Your task to perform on an android device: set the stopwatch Image 0: 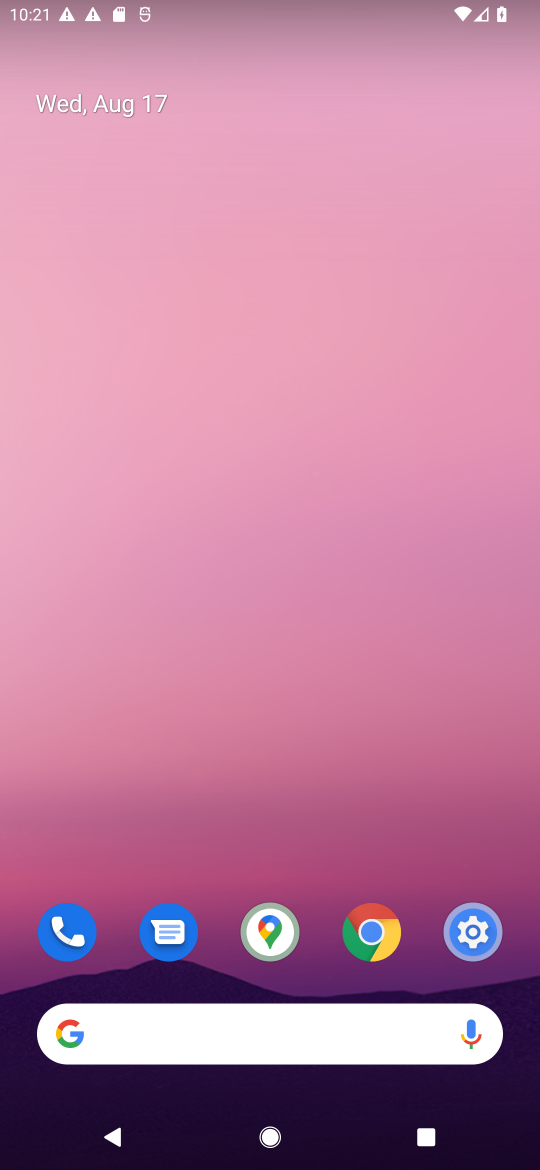
Step 0: drag from (294, 549) to (252, 235)
Your task to perform on an android device: set the stopwatch Image 1: 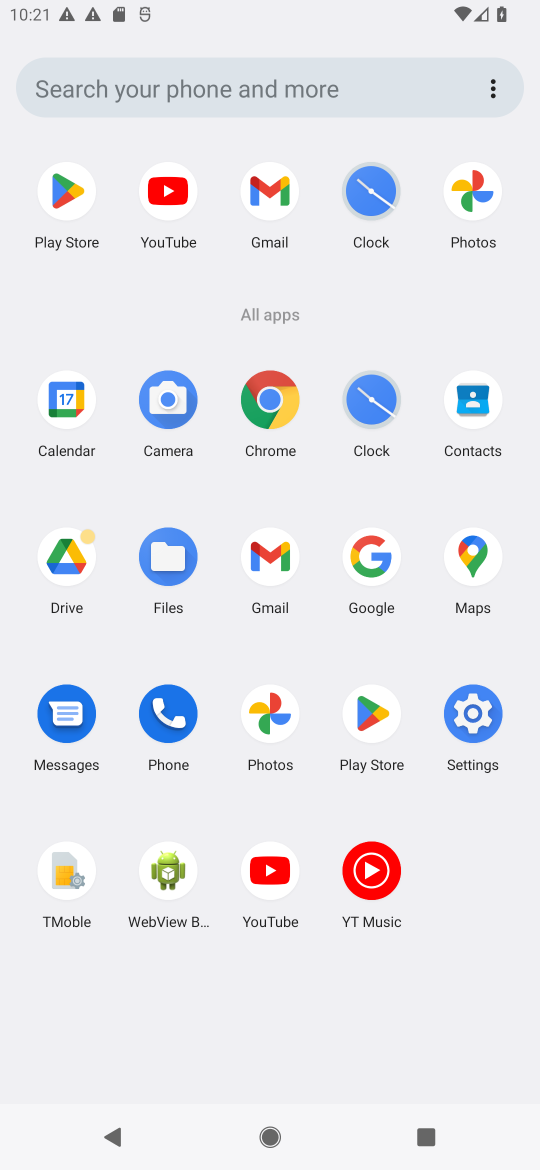
Step 1: click (342, 201)
Your task to perform on an android device: set the stopwatch Image 2: 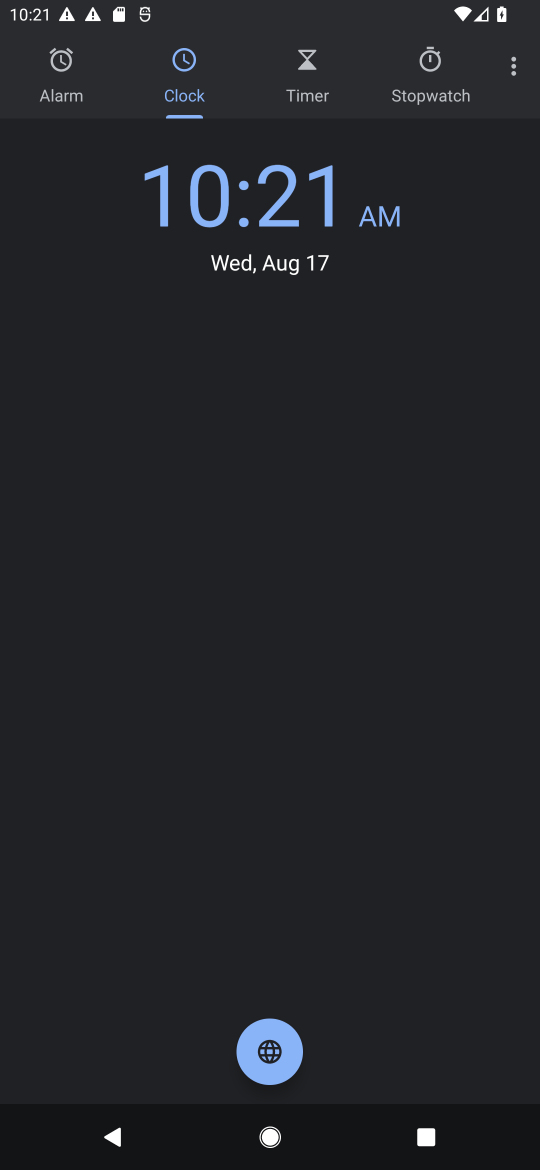
Step 2: click (405, 63)
Your task to perform on an android device: set the stopwatch Image 3: 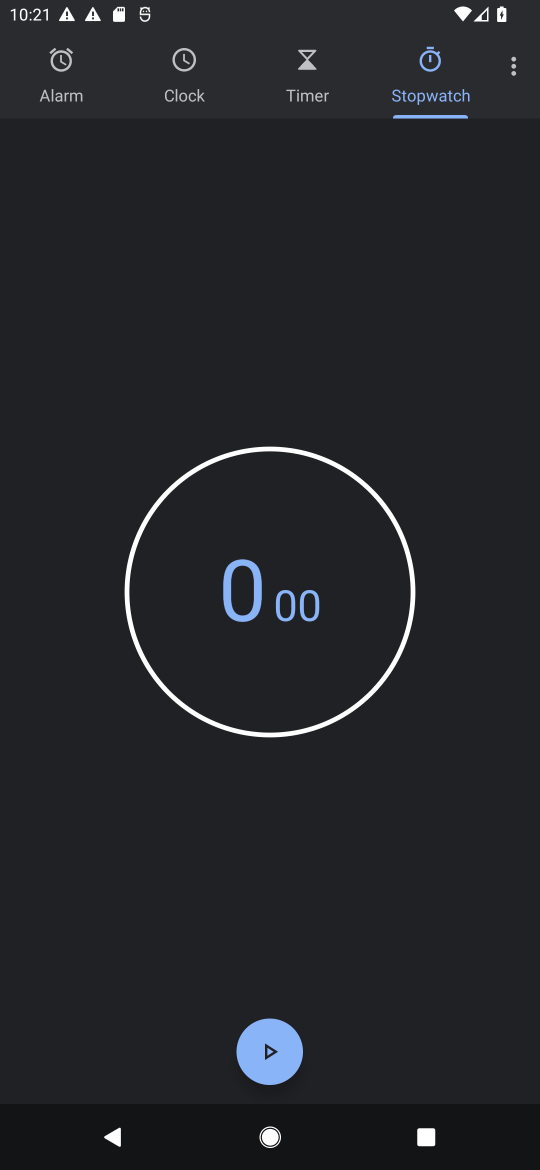
Step 3: click (242, 1062)
Your task to perform on an android device: set the stopwatch Image 4: 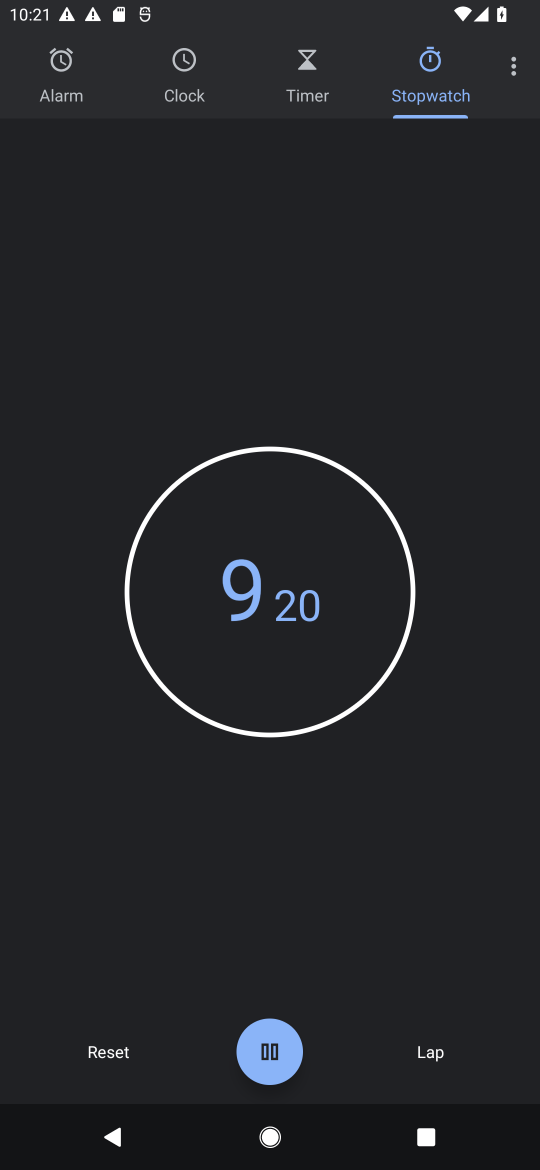
Step 4: task complete